Your task to perform on an android device: Open location settings Image 0: 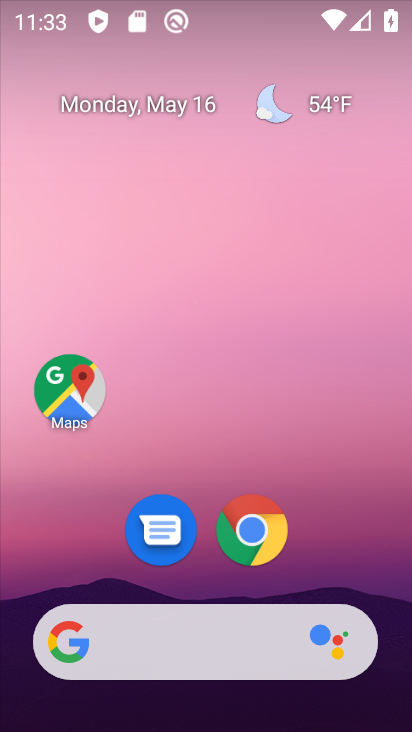
Step 0: drag from (377, 569) to (382, 154)
Your task to perform on an android device: Open location settings Image 1: 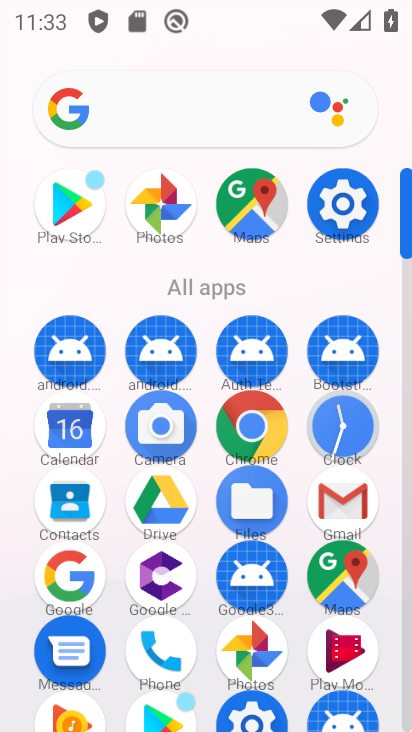
Step 1: click (362, 220)
Your task to perform on an android device: Open location settings Image 2: 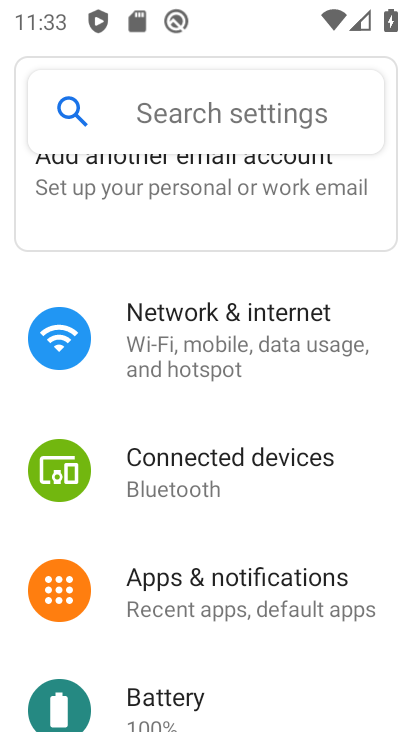
Step 2: drag from (369, 544) to (385, 438)
Your task to perform on an android device: Open location settings Image 3: 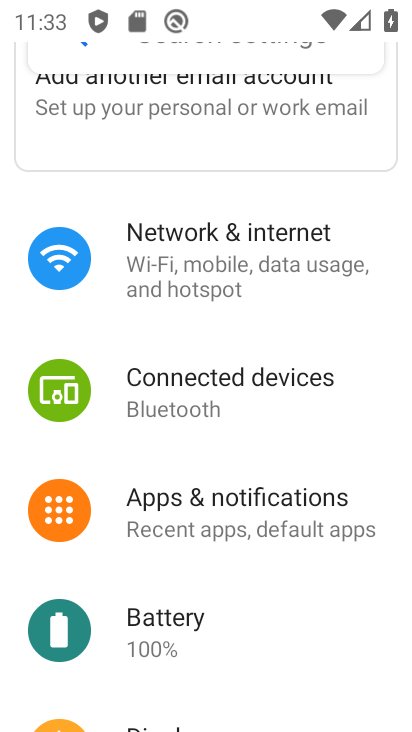
Step 3: drag from (353, 627) to (365, 462)
Your task to perform on an android device: Open location settings Image 4: 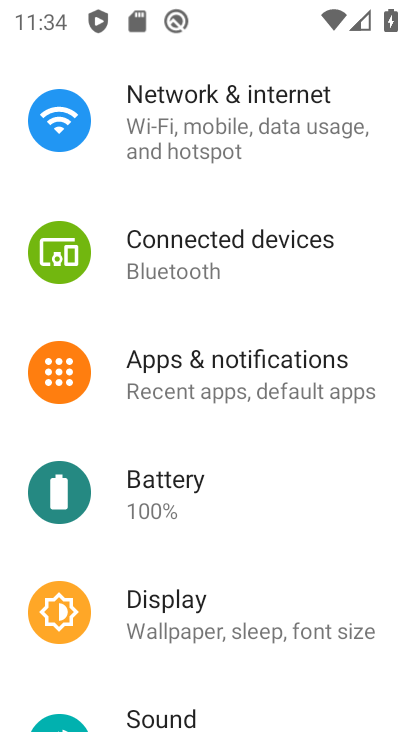
Step 4: drag from (366, 676) to (365, 489)
Your task to perform on an android device: Open location settings Image 5: 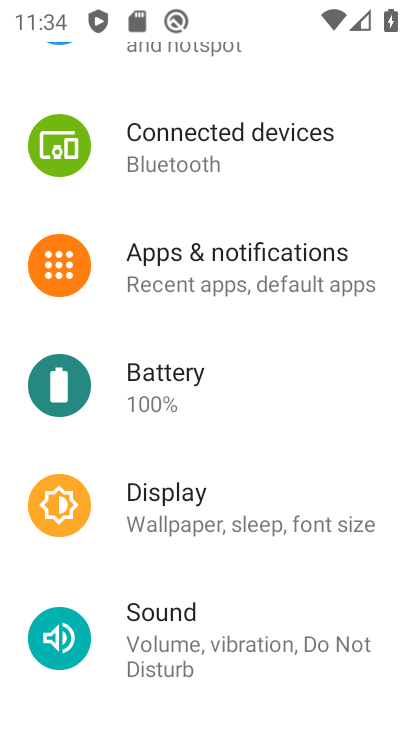
Step 5: drag from (326, 675) to (352, 544)
Your task to perform on an android device: Open location settings Image 6: 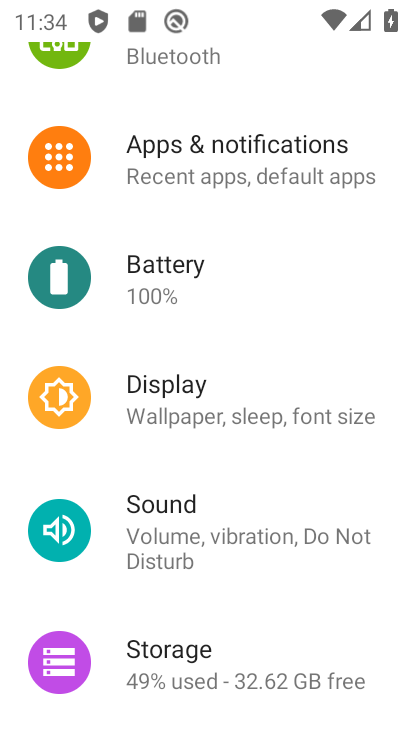
Step 6: drag from (380, 695) to (400, 579)
Your task to perform on an android device: Open location settings Image 7: 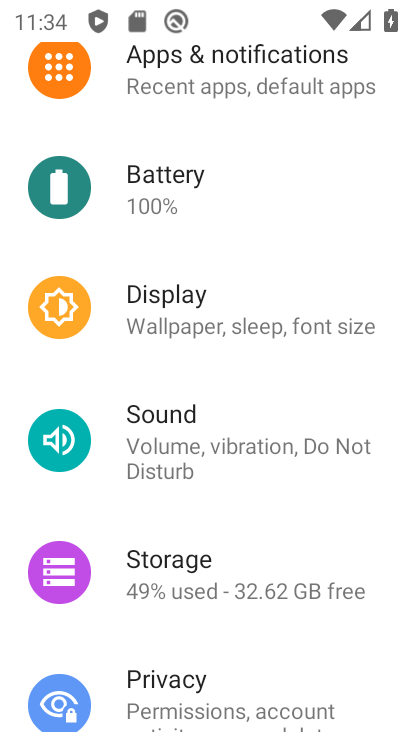
Step 7: drag from (374, 673) to (369, 544)
Your task to perform on an android device: Open location settings Image 8: 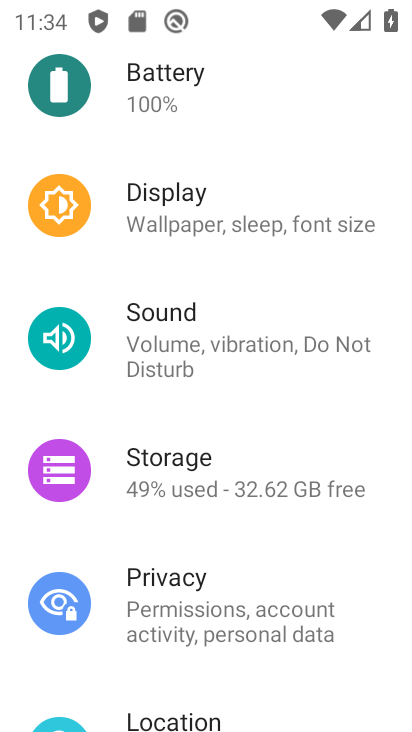
Step 8: drag from (347, 673) to (353, 553)
Your task to perform on an android device: Open location settings Image 9: 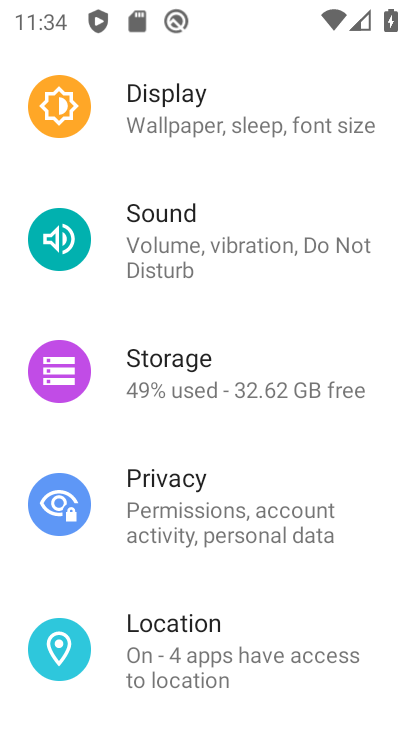
Step 9: drag from (352, 674) to (357, 571)
Your task to perform on an android device: Open location settings Image 10: 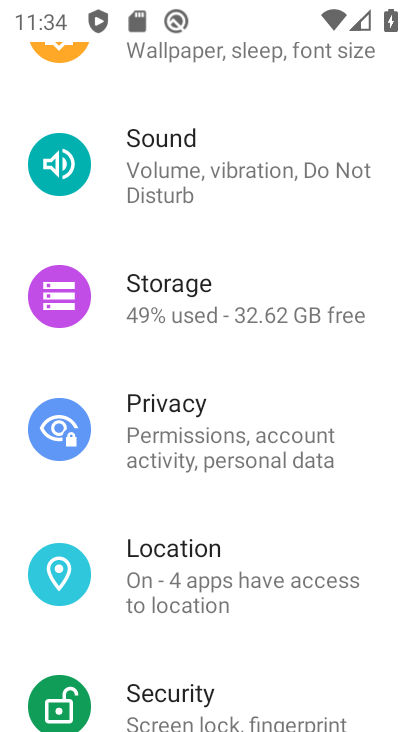
Step 10: drag from (347, 639) to (380, 515)
Your task to perform on an android device: Open location settings Image 11: 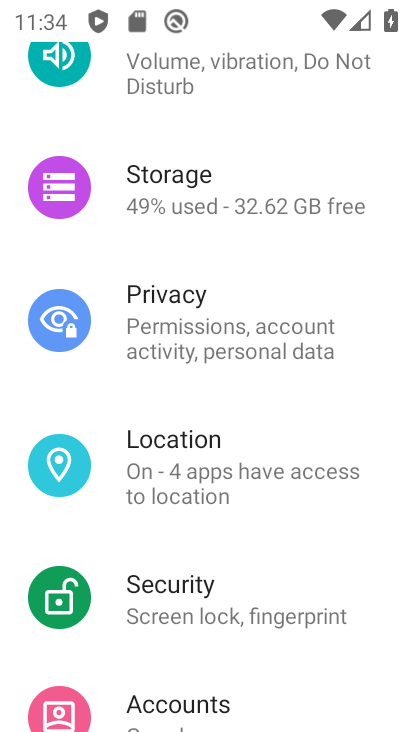
Step 11: drag from (353, 670) to (380, 492)
Your task to perform on an android device: Open location settings Image 12: 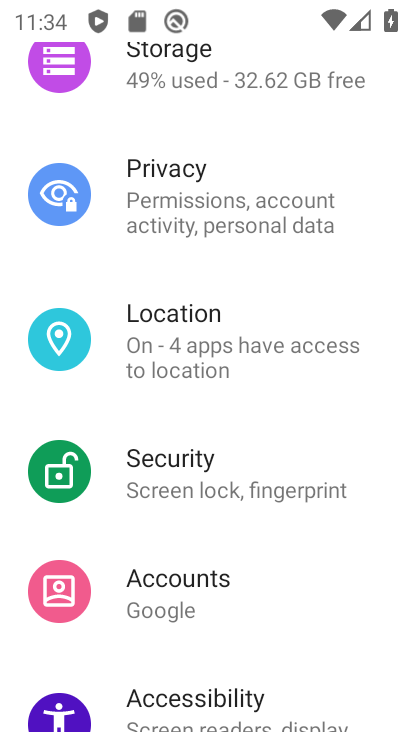
Step 12: drag from (353, 668) to (373, 495)
Your task to perform on an android device: Open location settings Image 13: 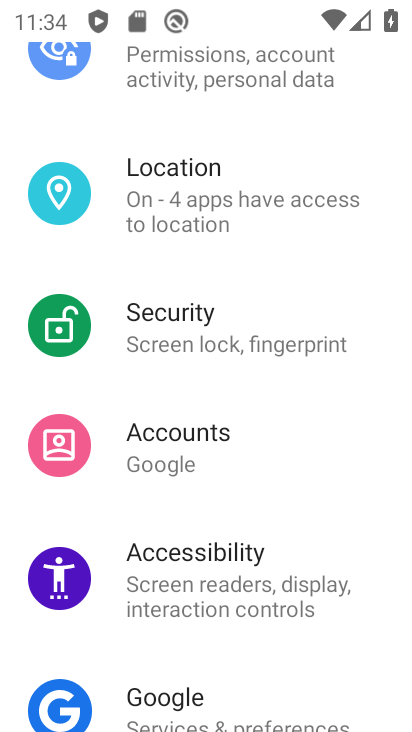
Step 13: drag from (347, 658) to (381, 522)
Your task to perform on an android device: Open location settings Image 14: 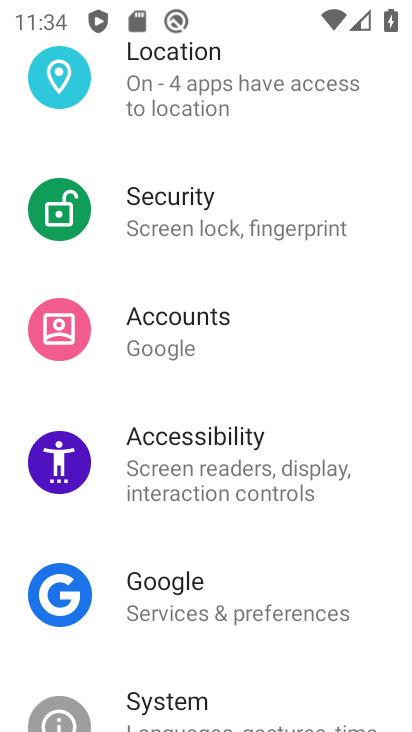
Step 14: drag from (376, 316) to (381, 467)
Your task to perform on an android device: Open location settings Image 15: 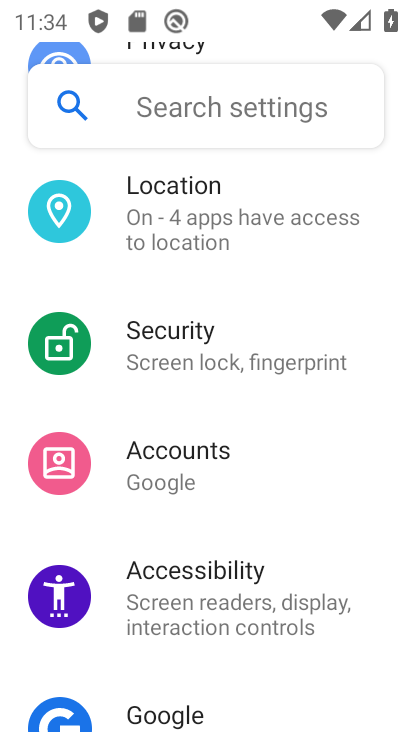
Step 15: drag from (359, 277) to (352, 404)
Your task to perform on an android device: Open location settings Image 16: 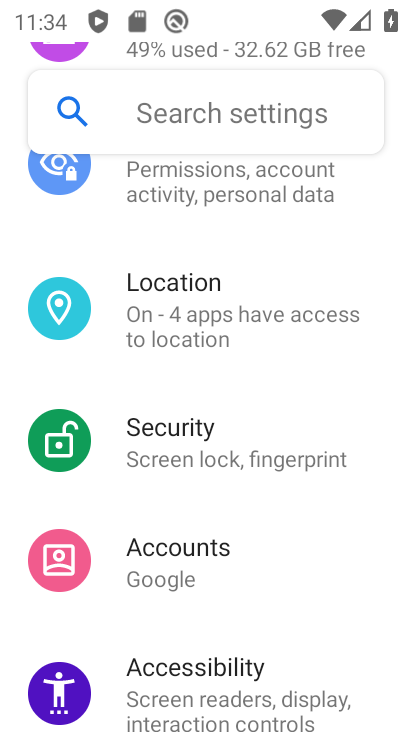
Step 16: click (305, 328)
Your task to perform on an android device: Open location settings Image 17: 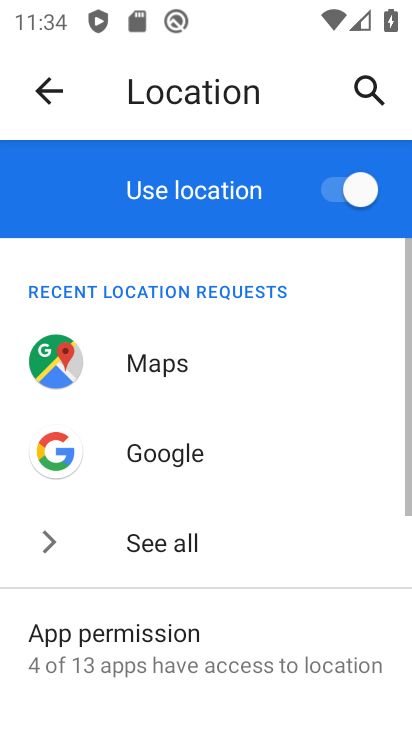
Step 17: task complete